Your task to perform on an android device: Open Wikipedia Image 0: 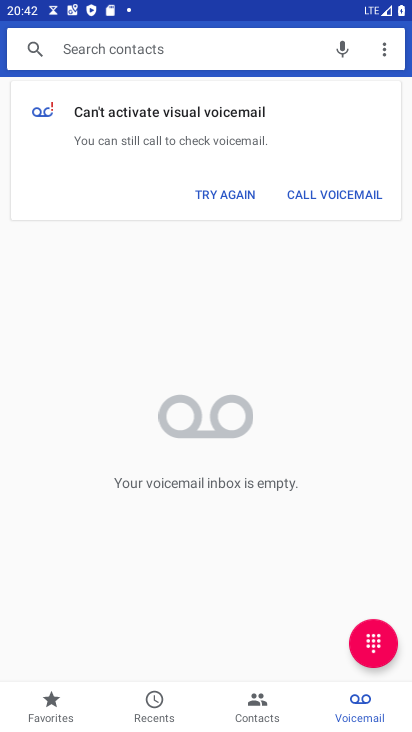
Step 0: press back button
Your task to perform on an android device: Open Wikipedia Image 1: 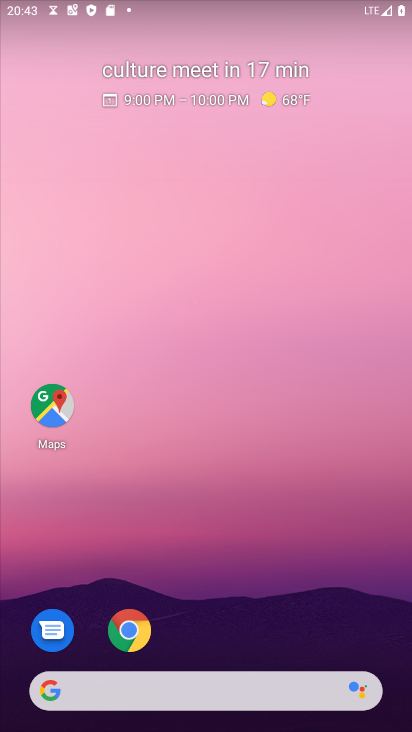
Step 1: click (129, 628)
Your task to perform on an android device: Open Wikipedia Image 2: 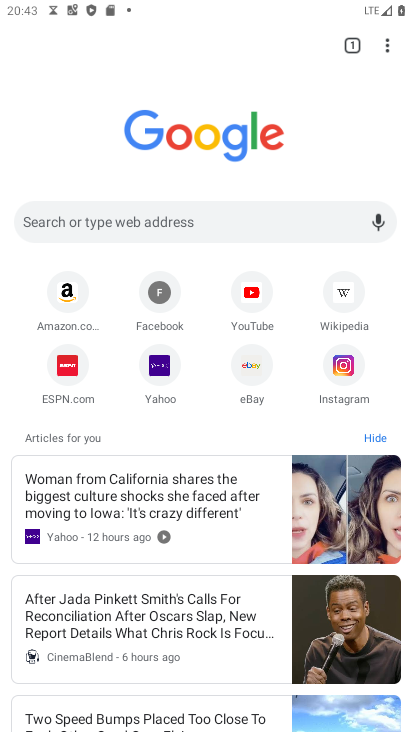
Step 2: click (346, 290)
Your task to perform on an android device: Open Wikipedia Image 3: 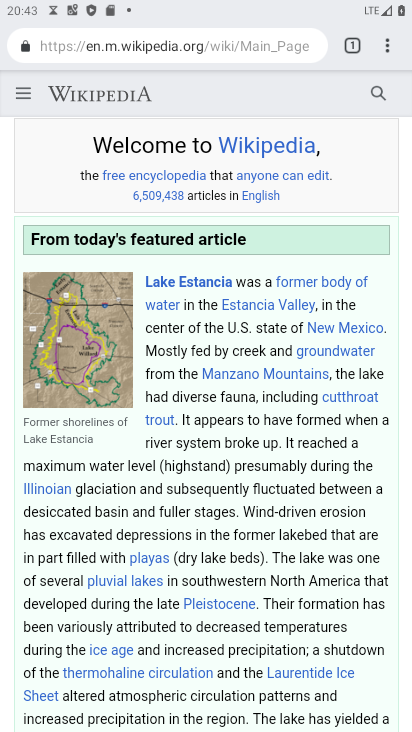
Step 3: task complete